Your task to perform on an android device: What's the weather going to be tomorrow? Image 0: 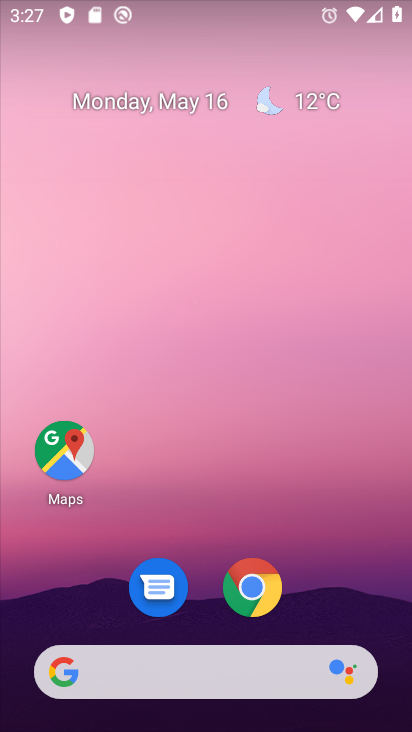
Step 0: click (315, 103)
Your task to perform on an android device: What's the weather going to be tomorrow? Image 1: 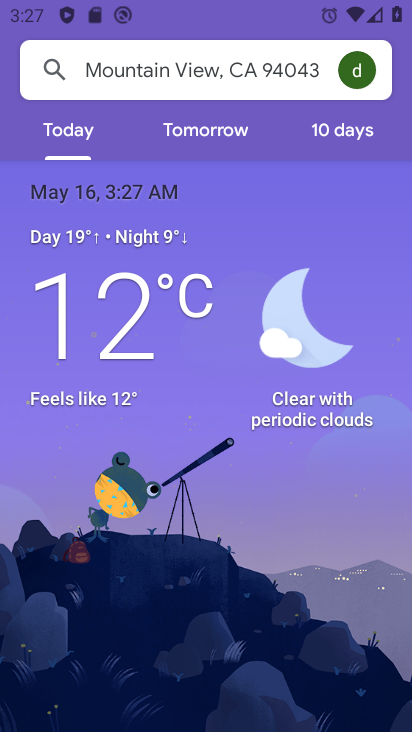
Step 1: click (187, 131)
Your task to perform on an android device: What's the weather going to be tomorrow? Image 2: 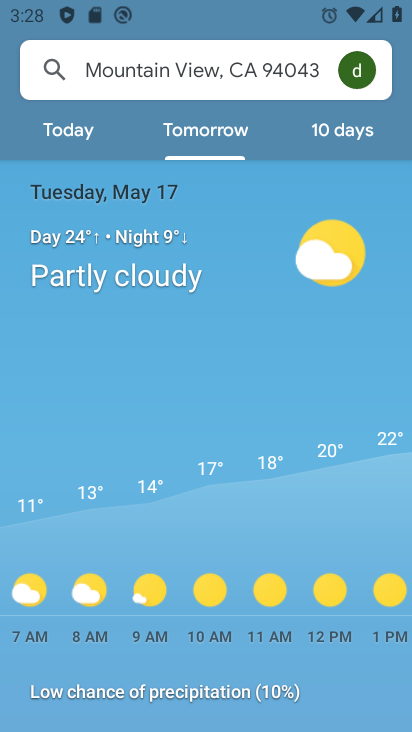
Step 2: task complete